Your task to perform on an android device: change the clock display to digital Image 0: 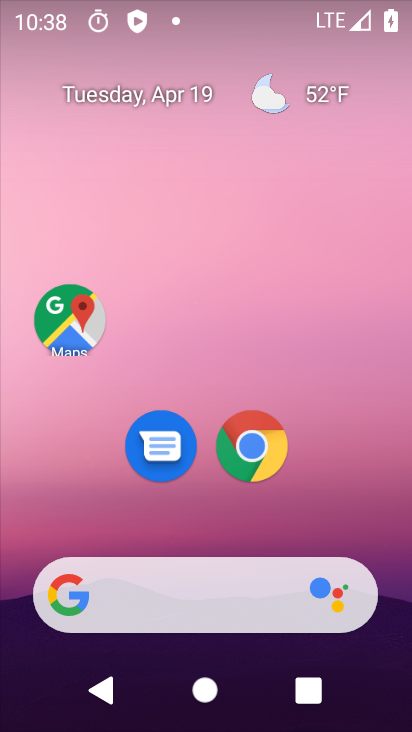
Step 0: click (355, 98)
Your task to perform on an android device: change the clock display to digital Image 1: 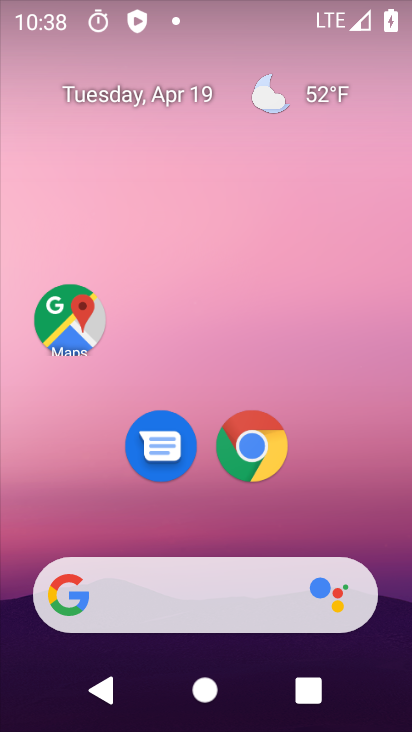
Step 1: drag from (367, 381) to (338, 205)
Your task to perform on an android device: change the clock display to digital Image 2: 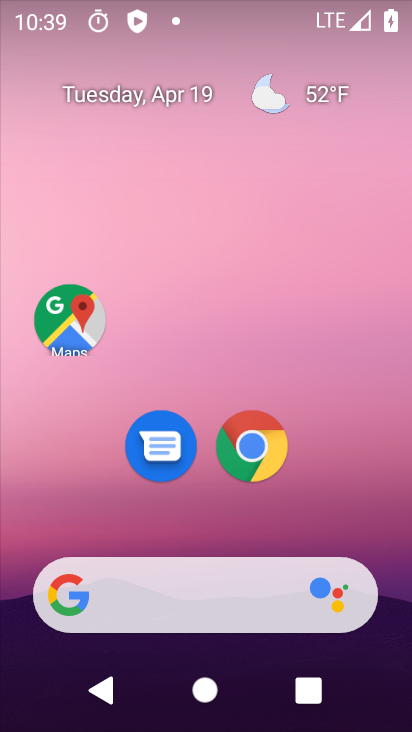
Step 2: drag from (364, 199) to (359, 125)
Your task to perform on an android device: change the clock display to digital Image 3: 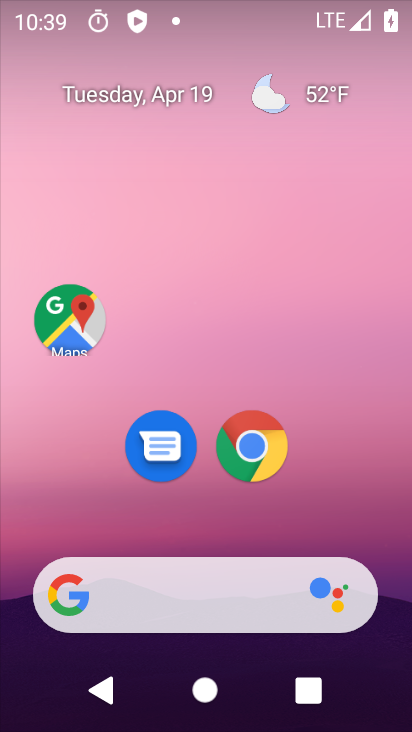
Step 3: click (374, 150)
Your task to perform on an android device: change the clock display to digital Image 4: 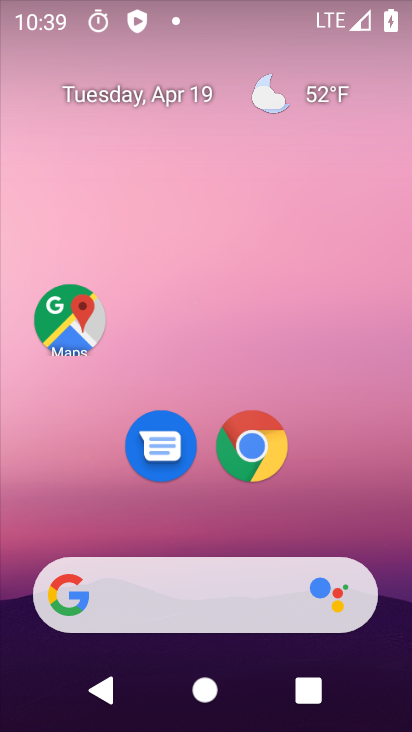
Step 4: click (334, 92)
Your task to perform on an android device: change the clock display to digital Image 5: 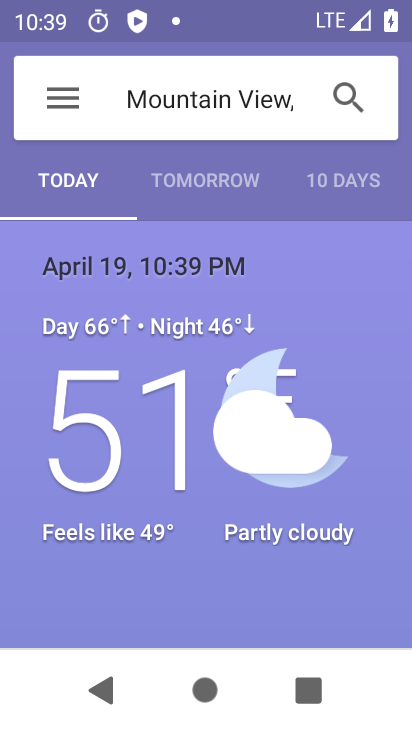
Step 5: press back button
Your task to perform on an android device: change the clock display to digital Image 6: 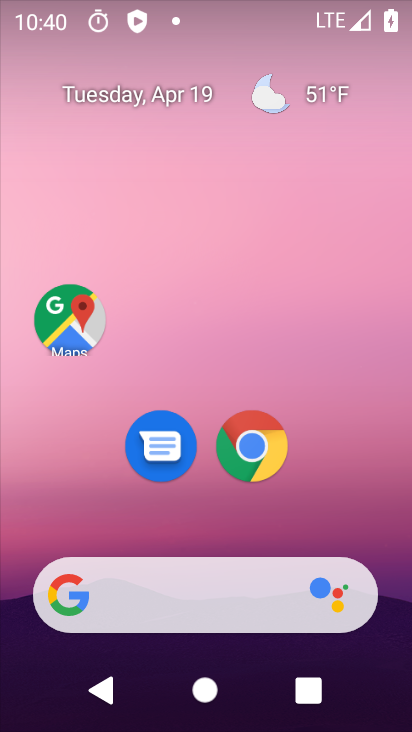
Step 6: click (324, 92)
Your task to perform on an android device: change the clock display to digital Image 7: 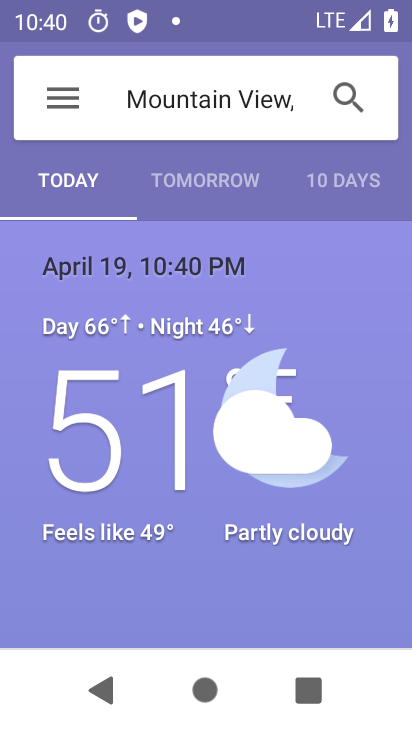
Step 7: press back button
Your task to perform on an android device: change the clock display to digital Image 8: 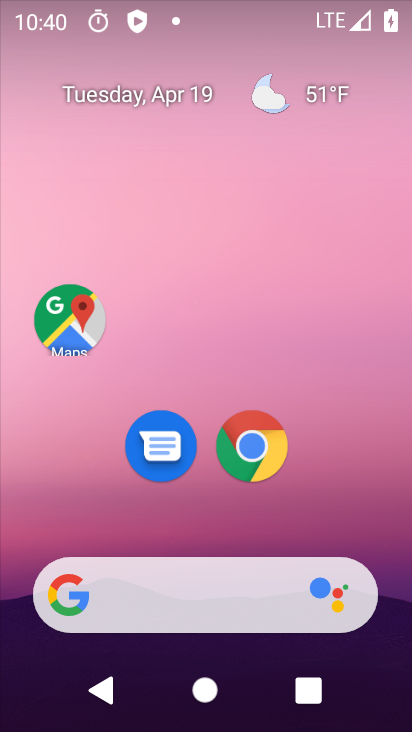
Step 8: drag from (320, 232) to (308, 185)
Your task to perform on an android device: change the clock display to digital Image 9: 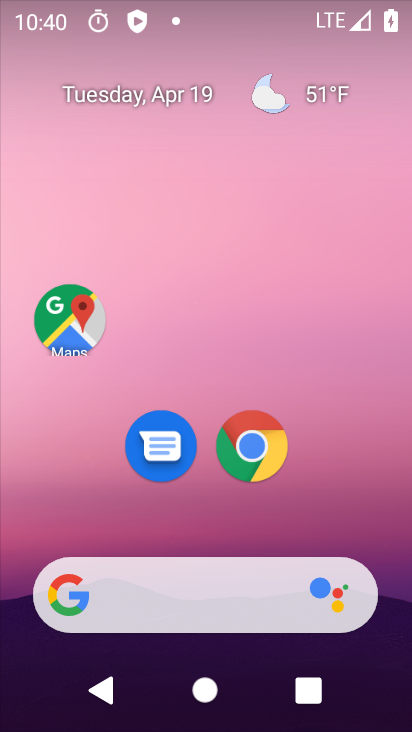
Step 9: drag from (360, 378) to (346, 160)
Your task to perform on an android device: change the clock display to digital Image 10: 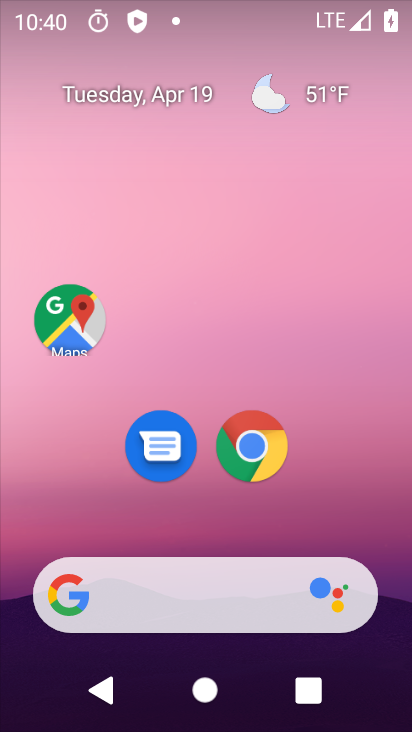
Step 10: click (350, 254)
Your task to perform on an android device: change the clock display to digital Image 11: 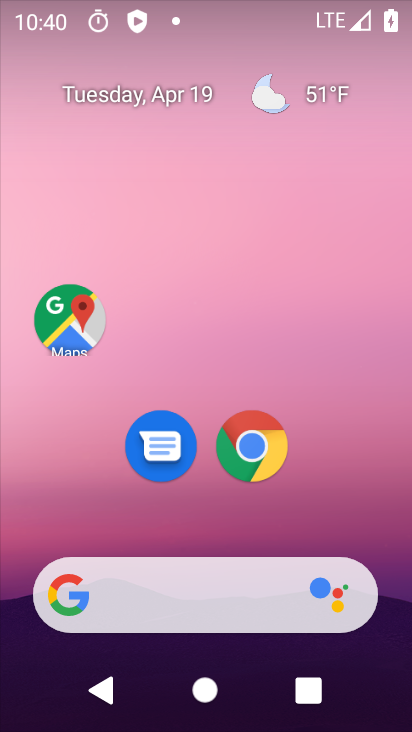
Step 11: click (358, 172)
Your task to perform on an android device: change the clock display to digital Image 12: 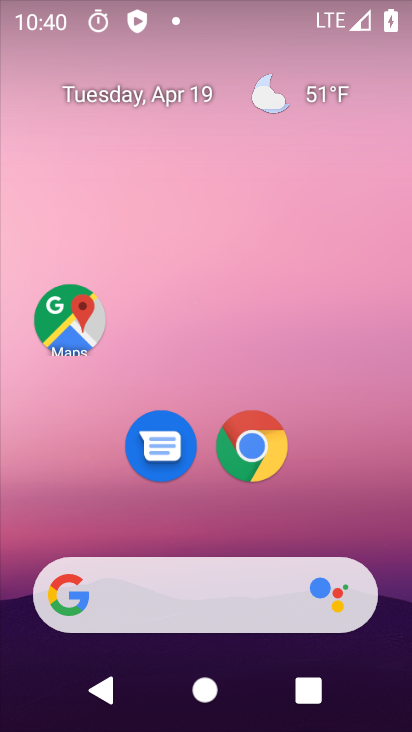
Step 12: drag from (375, 539) to (298, 123)
Your task to perform on an android device: change the clock display to digital Image 13: 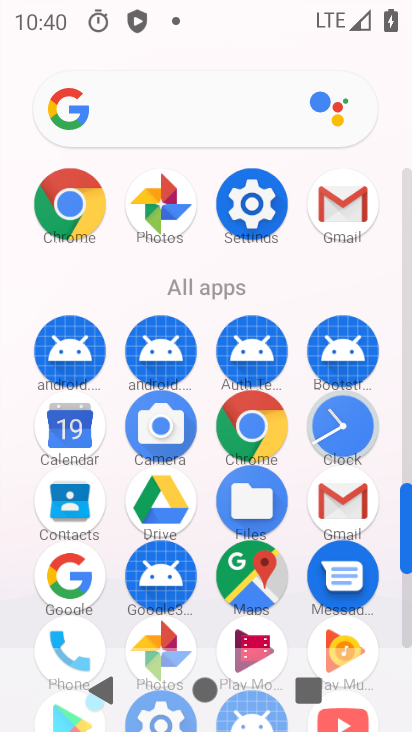
Step 13: click (327, 443)
Your task to perform on an android device: change the clock display to digital Image 14: 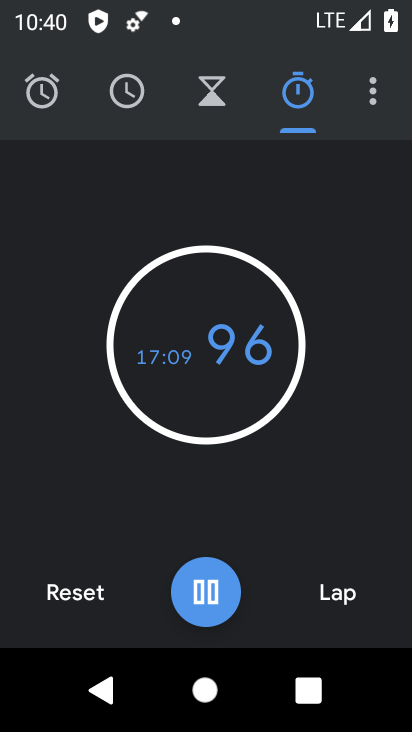
Step 14: click (133, 96)
Your task to perform on an android device: change the clock display to digital Image 15: 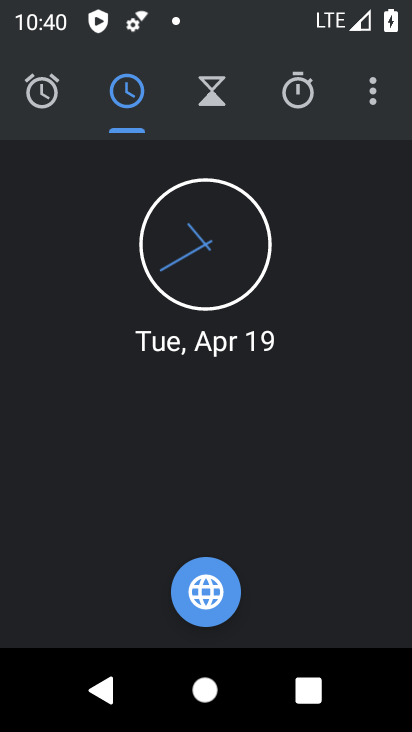
Step 15: click (372, 94)
Your task to perform on an android device: change the clock display to digital Image 16: 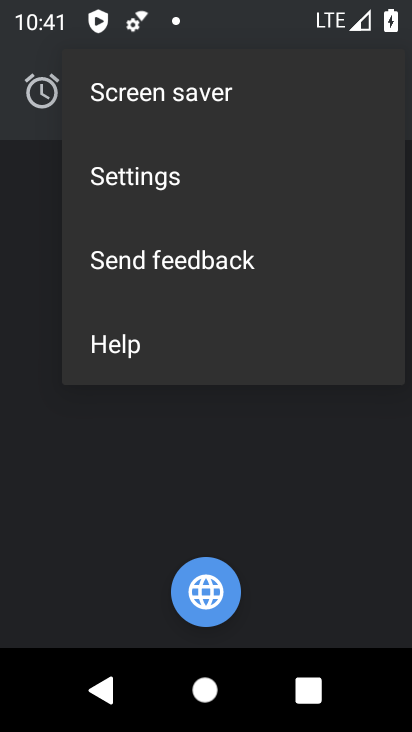
Step 16: click (129, 177)
Your task to perform on an android device: change the clock display to digital Image 17: 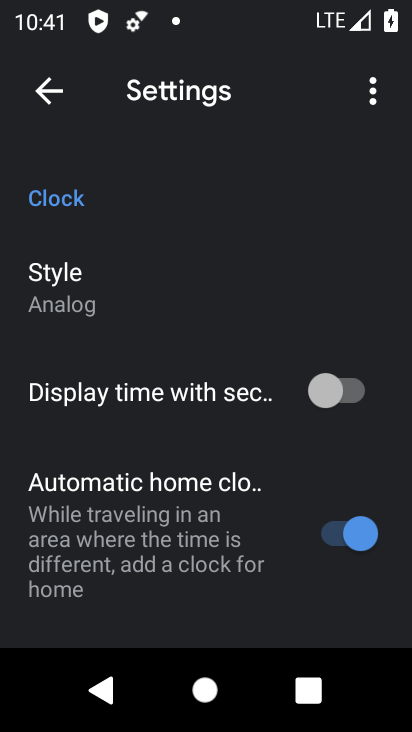
Step 17: click (63, 273)
Your task to perform on an android device: change the clock display to digital Image 18: 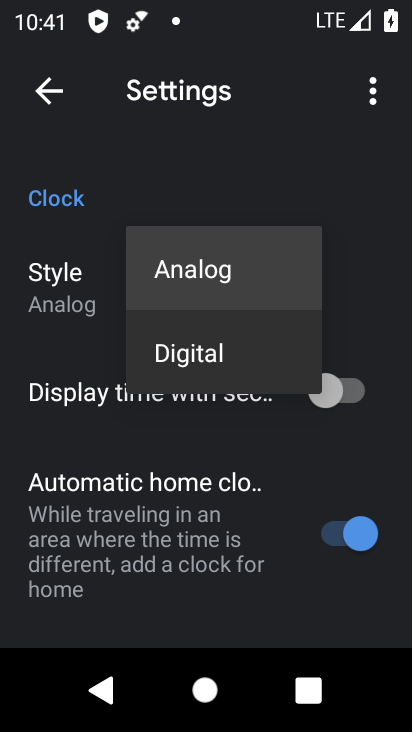
Step 18: click (159, 350)
Your task to perform on an android device: change the clock display to digital Image 19: 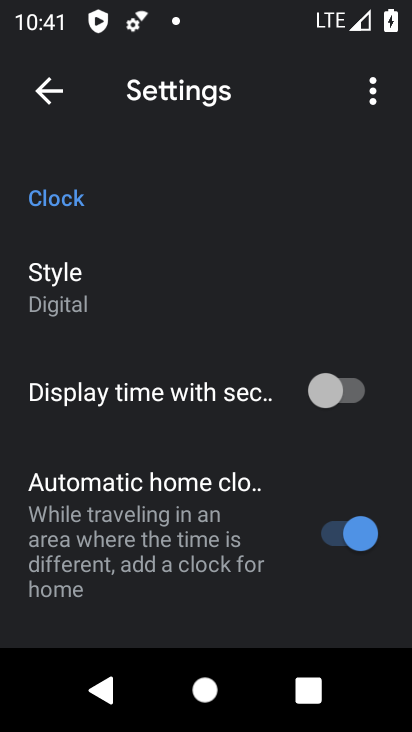
Step 19: task complete